Your task to perform on an android device: Open Android settings Image 0: 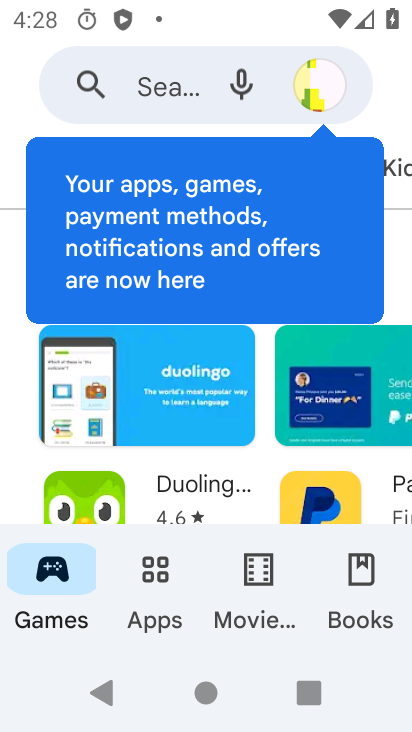
Step 0: press home button
Your task to perform on an android device: Open Android settings Image 1: 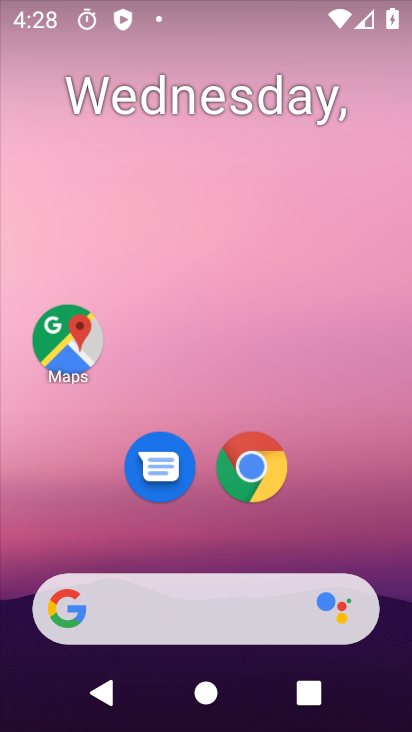
Step 1: drag from (339, 297) to (333, 256)
Your task to perform on an android device: Open Android settings Image 2: 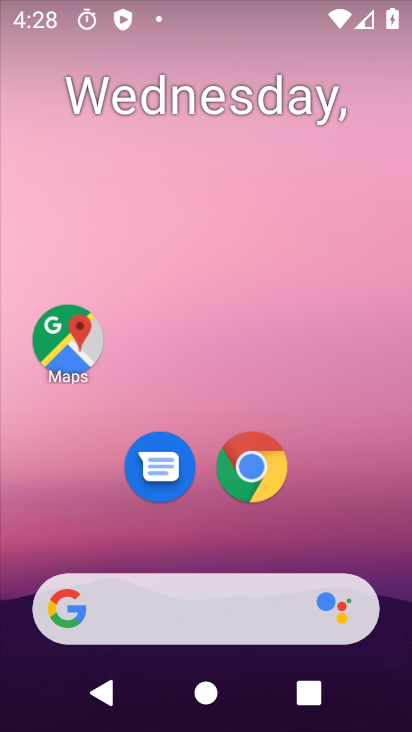
Step 2: drag from (402, 696) to (342, 179)
Your task to perform on an android device: Open Android settings Image 3: 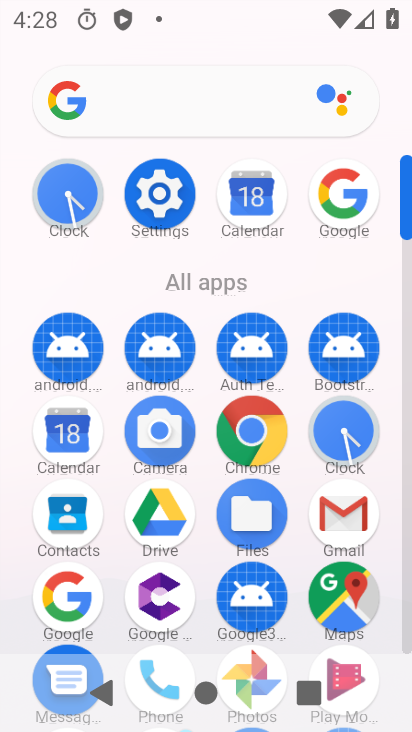
Step 3: click (156, 187)
Your task to perform on an android device: Open Android settings Image 4: 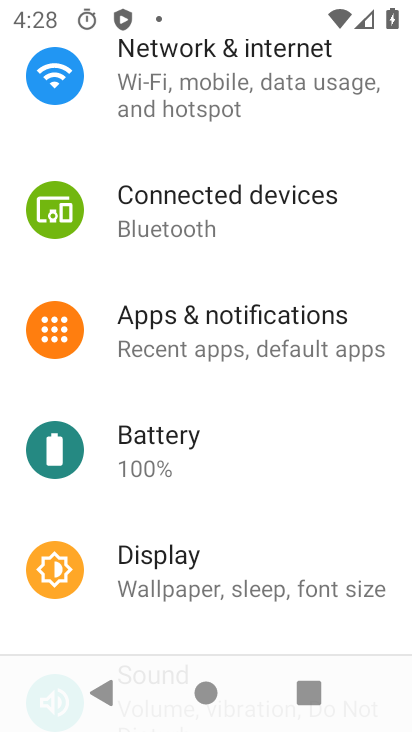
Step 4: task complete